Your task to perform on an android device: toggle notification dots Image 0: 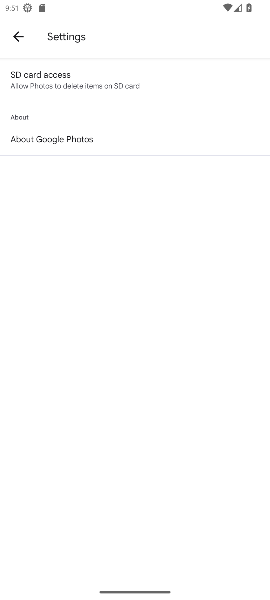
Step 0: press home button
Your task to perform on an android device: toggle notification dots Image 1: 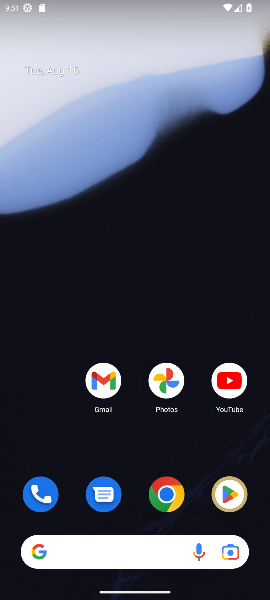
Step 1: drag from (192, 450) to (197, 69)
Your task to perform on an android device: toggle notification dots Image 2: 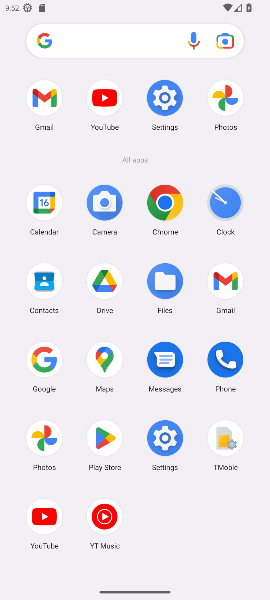
Step 2: click (173, 436)
Your task to perform on an android device: toggle notification dots Image 3: 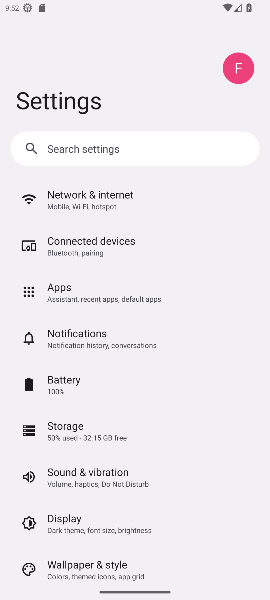
Step 3: click (89, 327)
Your task to perform on an android device: toggle notification dots Image 4: 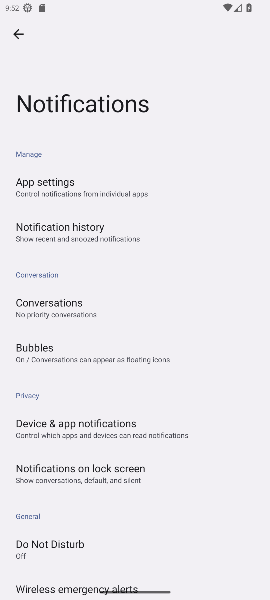
Step 4: drag from (160, 507) to (164, 188)
Your task to perform on an android device: toggle notification dots Image 5: 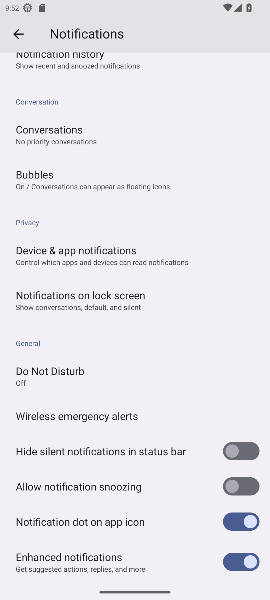
Step 5: click (253, 523)
Your task to perform on an android device: toggle notification dots Image 6: 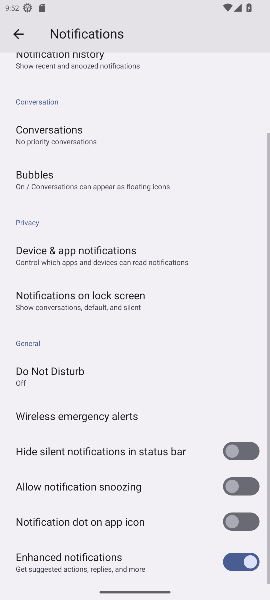
Step 6: task complete